Your task to perform on an android device: change timer sound Image 0: 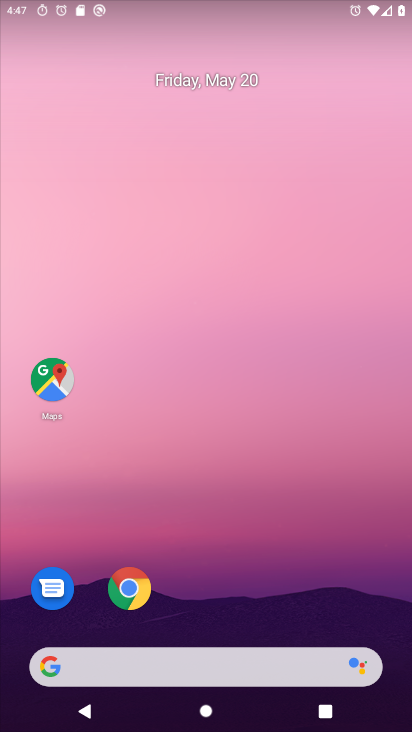
Step 0: drag from (243, 567) to (271, 73)
Your task to perform on an android device: change timer sound Image 1: 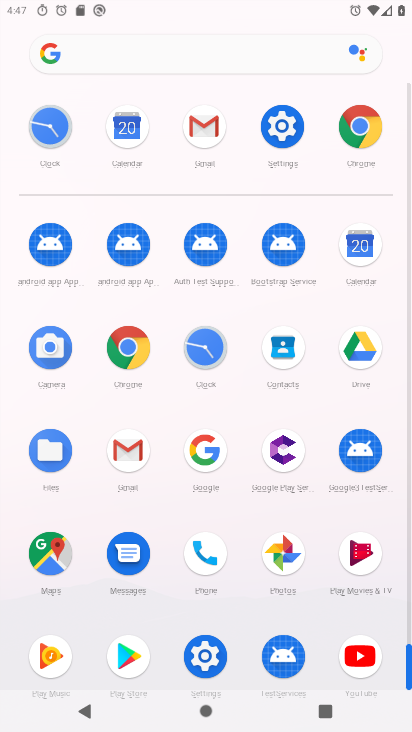
Step 1: click (195, 634)
Your task to perform on an android device: change timer sound Image 2: 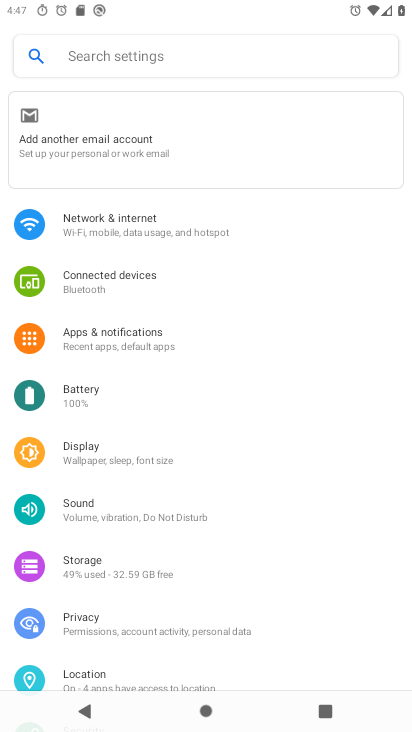
Step 2: drag from (153, 595) to (137, 271)
Your task to perform on an android device: change timer sound Image 3: 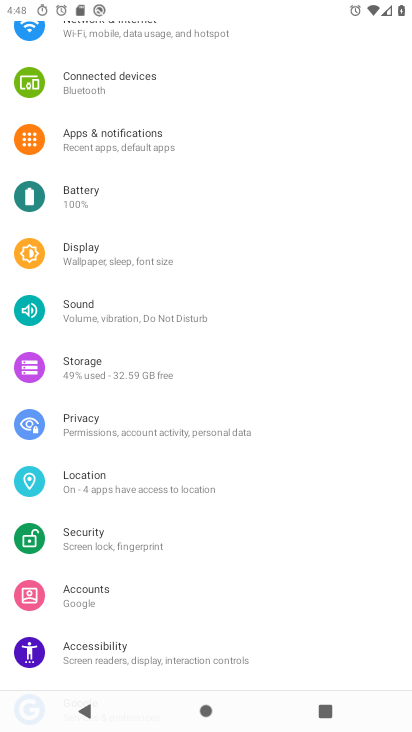
Step 3: press home button
Your task to perform on an android device: change timer sound Image 4: 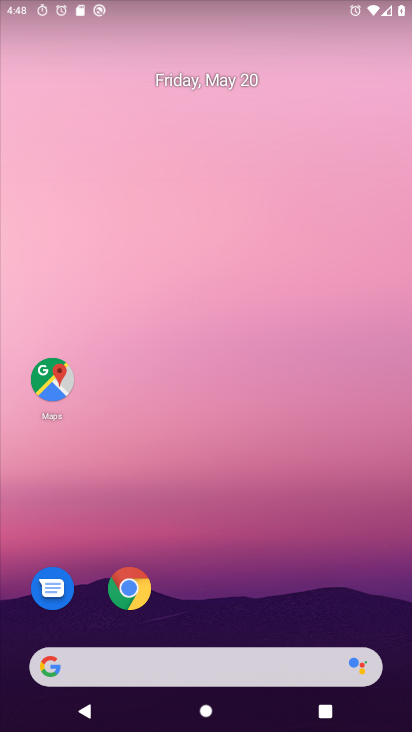
Step 4: drag from (224, 444) to (254, 119)
Your task to perform on an android device: change timer sound Image 5: 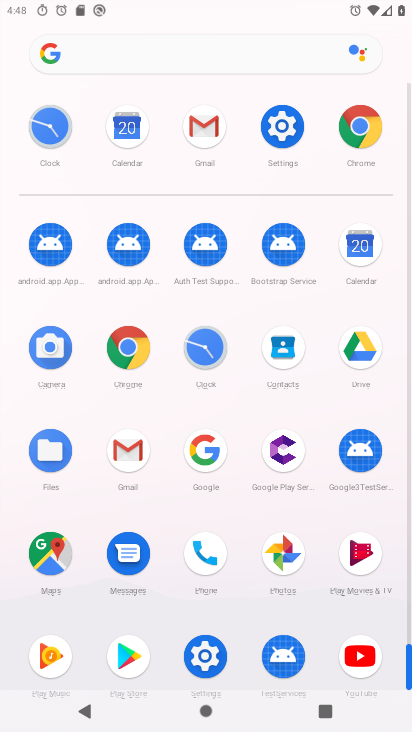
Step 5: click (210, 351)
Your task to perform on an android device: change timer sound Image 6: 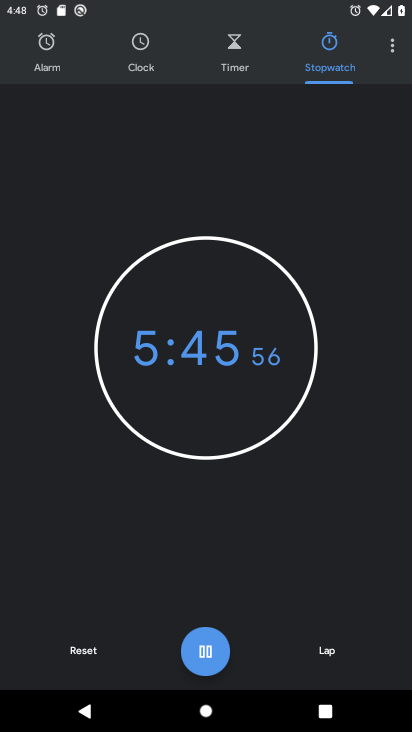
Step 6: click (239, 59)
Your task to perform on an android device: change timer sound Image 7: 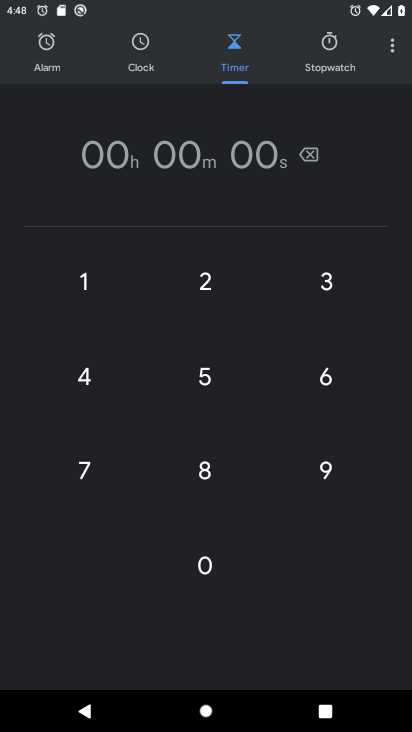
Step 7: click (206, 467)
Your task to perform on an android device: change timer sound Image 8: 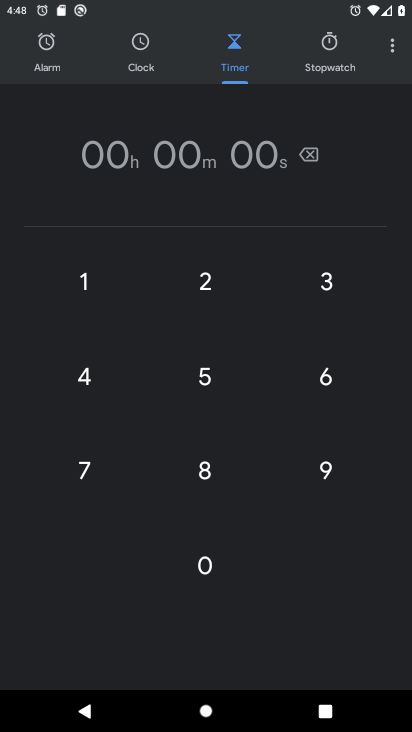
Step 8: click (206, 468)
Your task to perform on an android device: change timer sound Image 9: 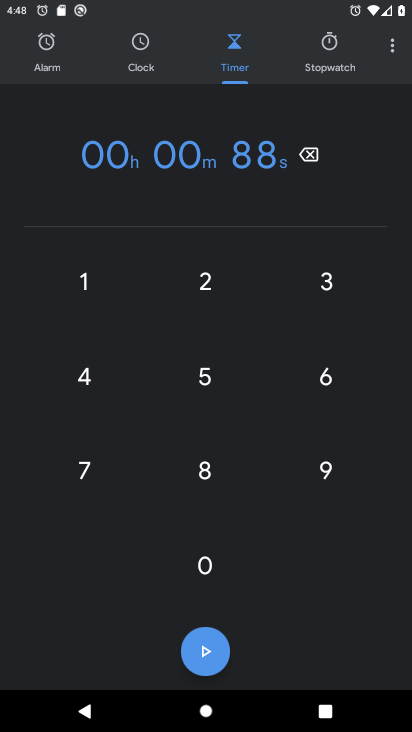
Step 9: click (87, 380)
Your task to perform on an android device: change timer sound Image 10: 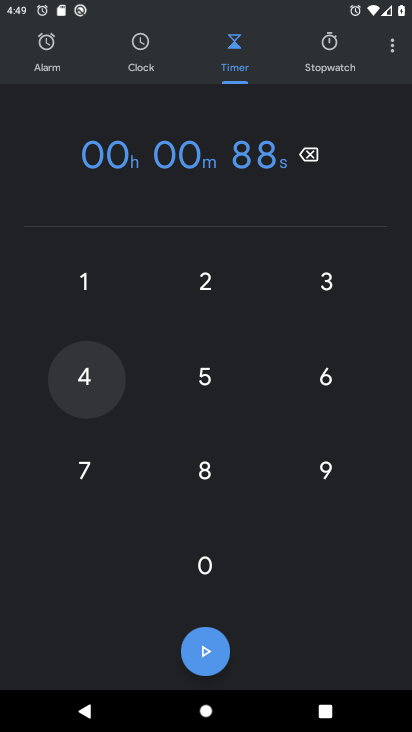
Step 10: click (87, 382)
Your task to perform on an android device: change timer sound Image 11: 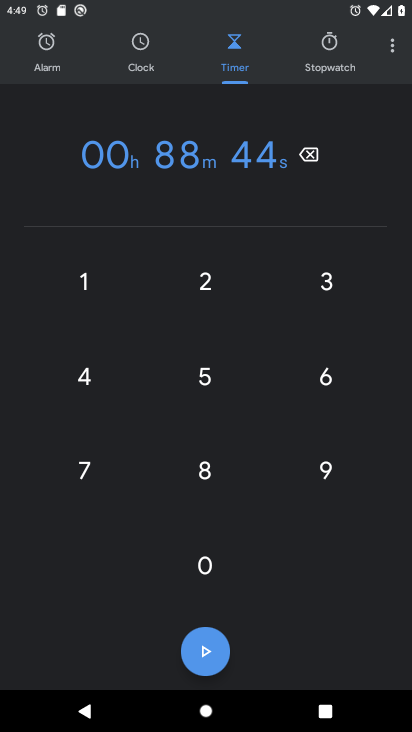
Step 11: click (196, 646)
Your task to perform on an android device: change timer sound Image 12: 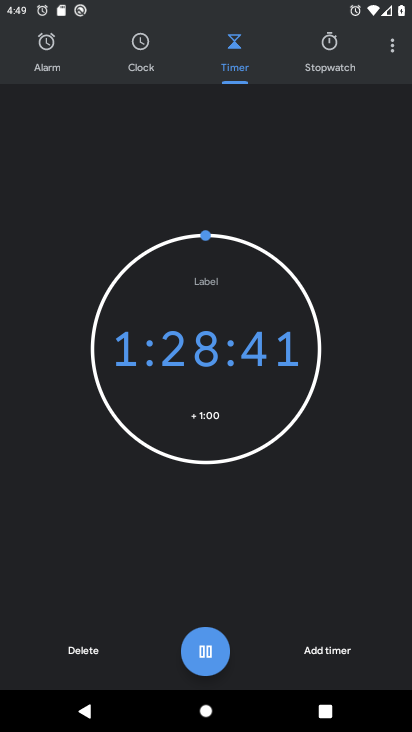
Step 12: task complete